Your task to perform on an android device: Open calendar and show me the fourth week of next month Image 0: 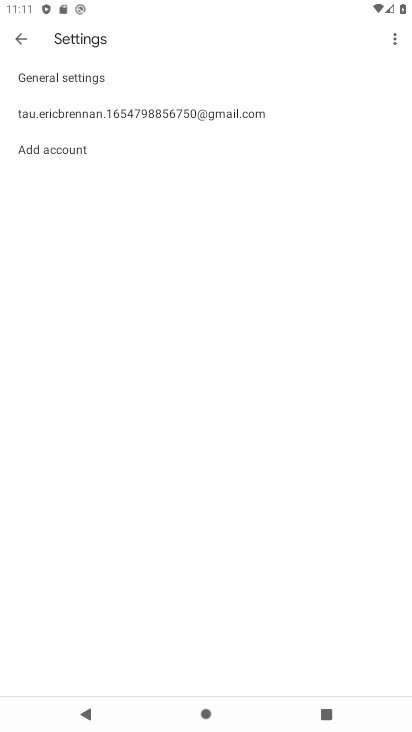
Step 0: press home button
Your task to perform on an android device: Open calendar and show me the fourth week of next month Image 1: 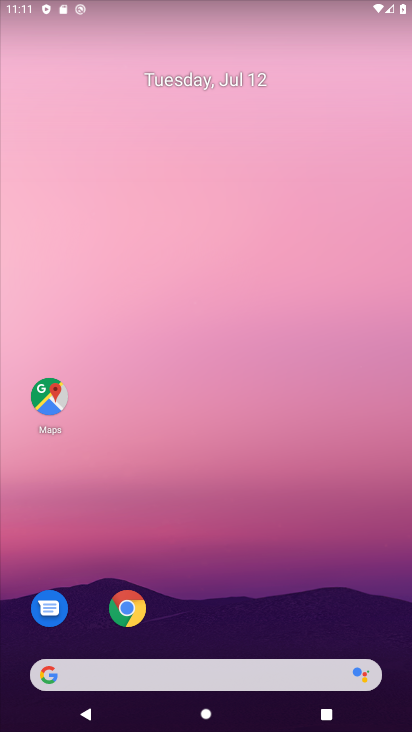
Step 1: click (218, 86)
Your task to perform on an android device: Open calendar and show me the fourth week of next month Image 2: 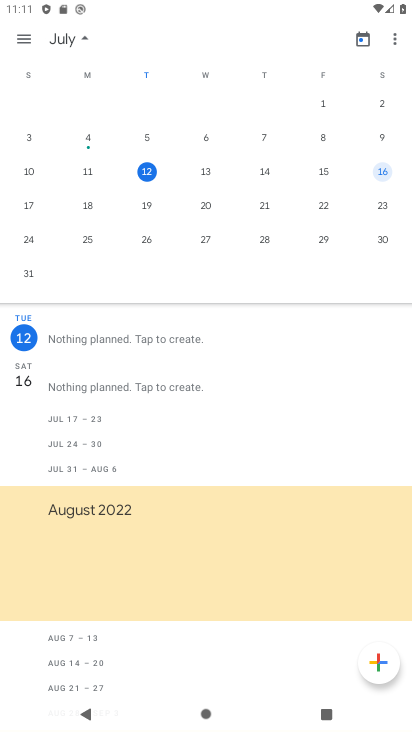
Step 2: drag from (375, 283) to (45, 258)
Your task to perform on an android device: Open calendar and show me the fourth week of next month Image 3: 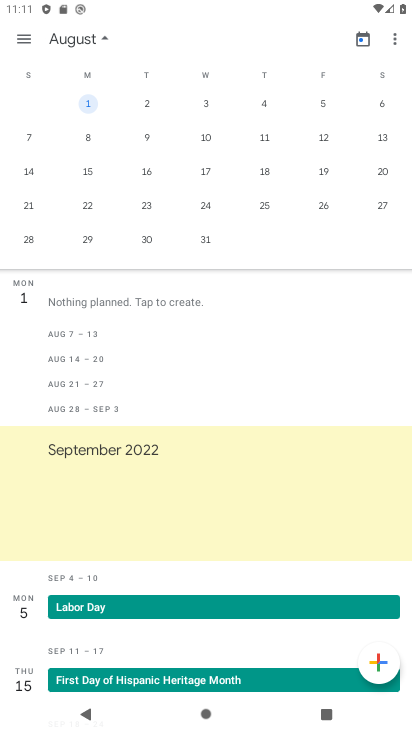
Step 3: click (382, 207)
Your task to perform on an android device: Open calendar and show me the fourth week of next month Image 4: 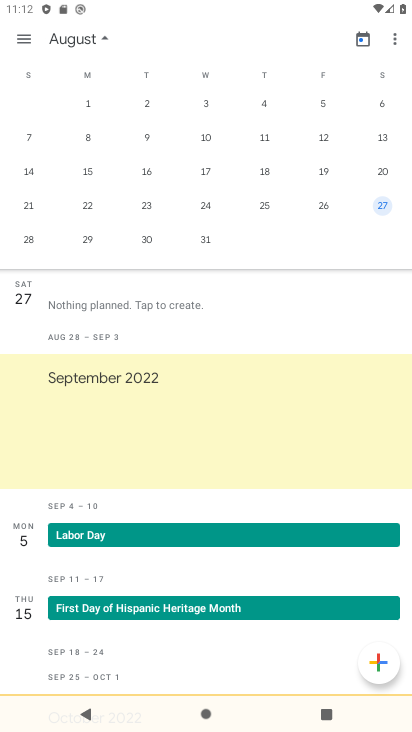
Step 4: task complete